Your task to perform on an android device: Show me productivity apps on the Play Store Image 0: 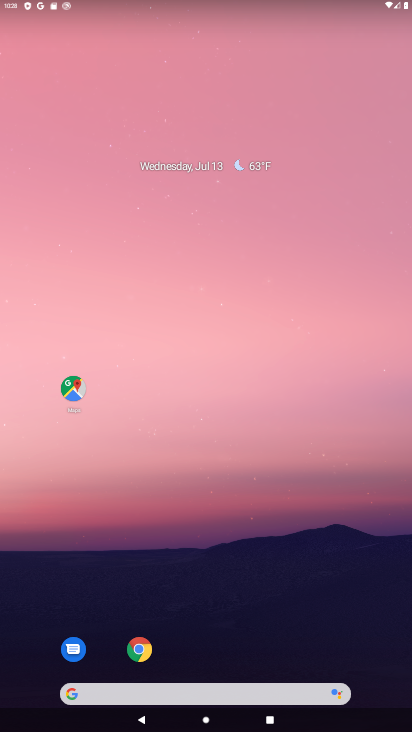
Step 0: drag from (184, 616) to (224, 378)
Your task to perform on an android device: Show me productivity apps on the Play Store Image 1: 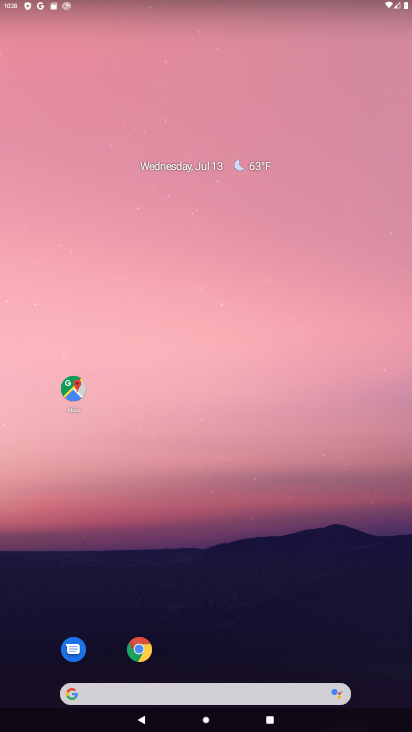
Step 1: drag from (243, 645) to (252, 276)
Your task to perform on an android device: Show me productivity apps on the Play Store Image 2: 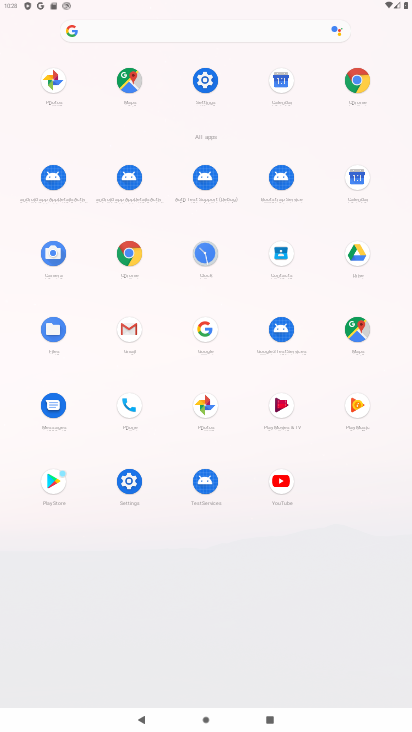
Step 2: click (64, 476)
Your task to perform on an android device: Show me productivity apps on the Play Store Image 3: 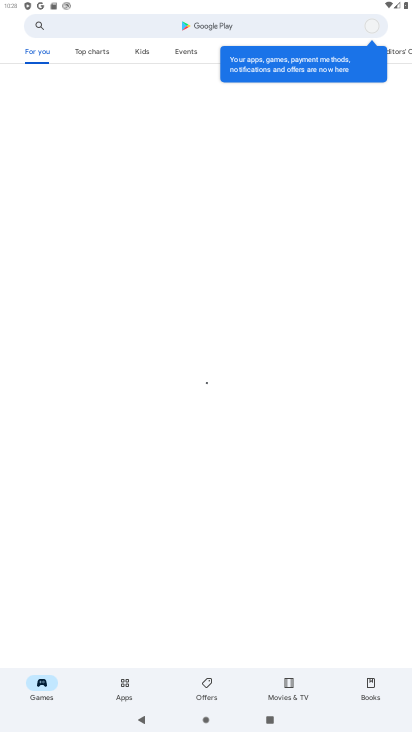
Step 3: click (133, 681)
Your task to perform on an android device: Show me productivity apps on the Play Store Image 4: 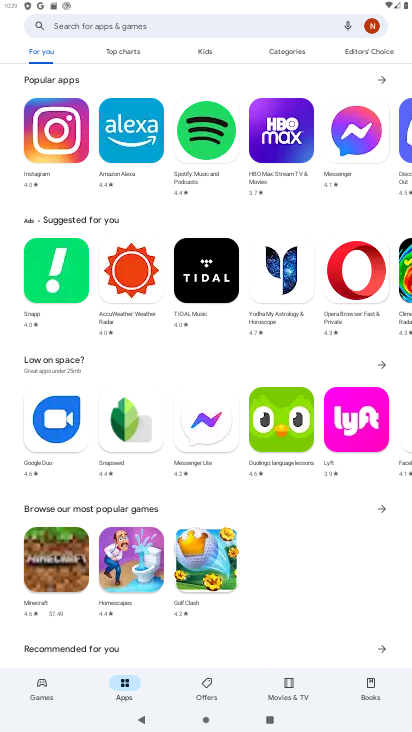
Step 4: task complete